Your task to perform on an android device: What's the weather today? Image 0: 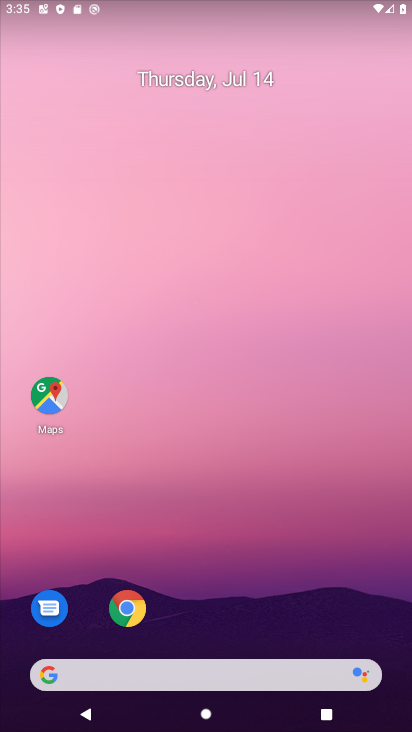
Step 0: click (134, 683)
Your task to perform on an android device: What's the weather today? Image 1: 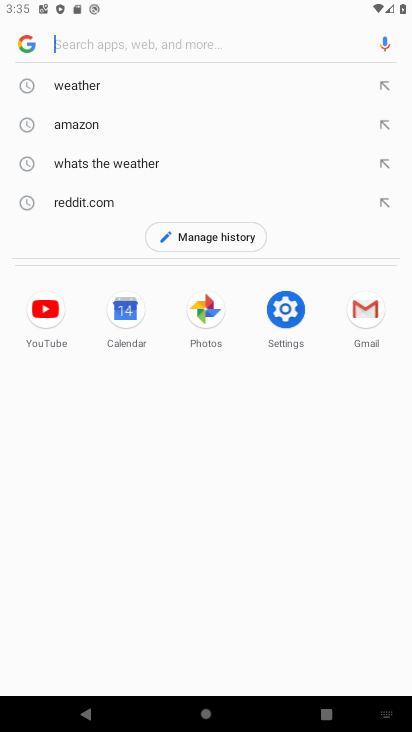
Step 1: click (78, 85)
Your task to perform on an android device: What's the weather today? Image 2: 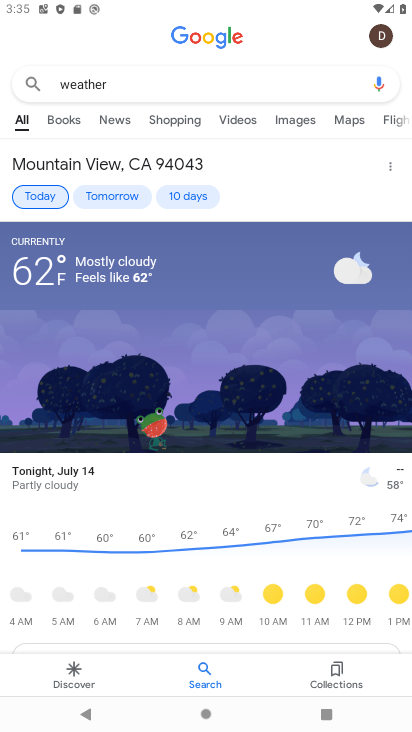
Step 2: task complete